Your task to perform on an android device: Go to Reddit.com Image 0: 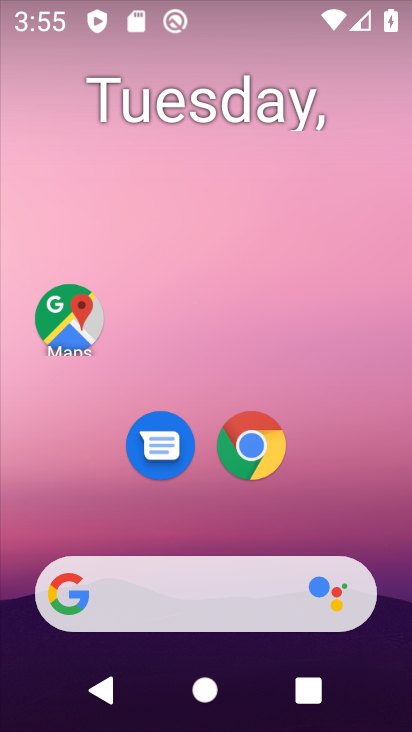
Step 0: click (240, 450)
Your task to perform on an android device: Go to Reddit.com Image 1: 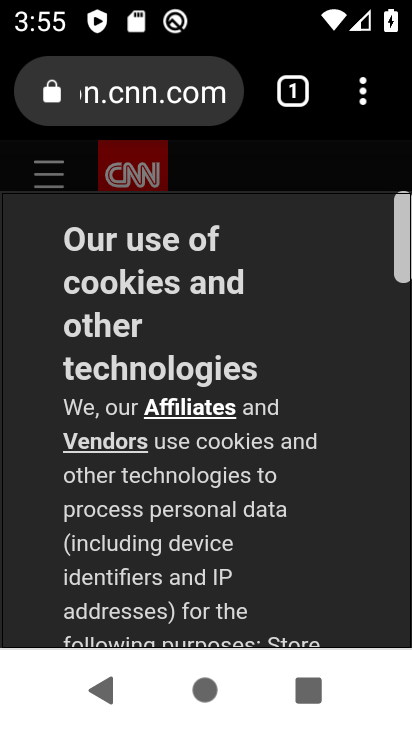
Step 1: click (286, 103)
Your task to perform on an android device: Go to Reddit.com Image 2: 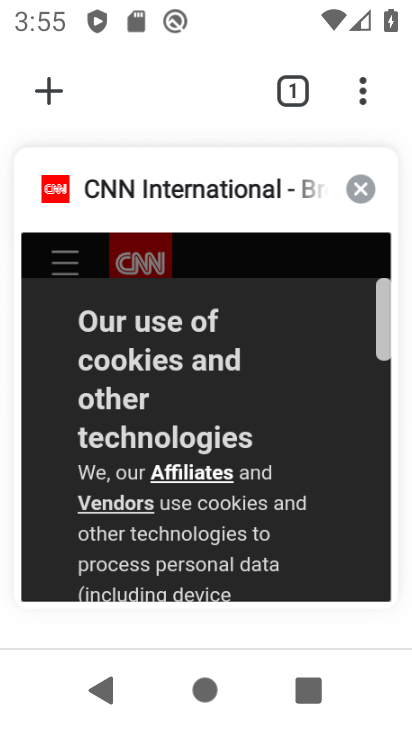
Step 2: click (359, 181)
Your task to perform on an android device: Go to Reddit.com Image 3: 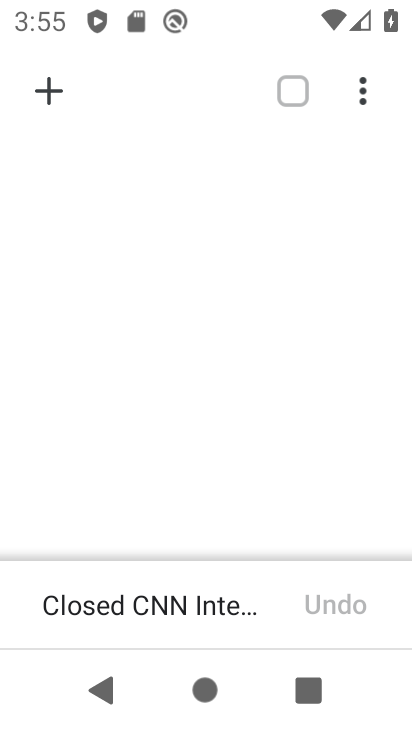
Step 3: click (50, 98)
Your task to perform on an android device: Go to Reddit.com Image 4: 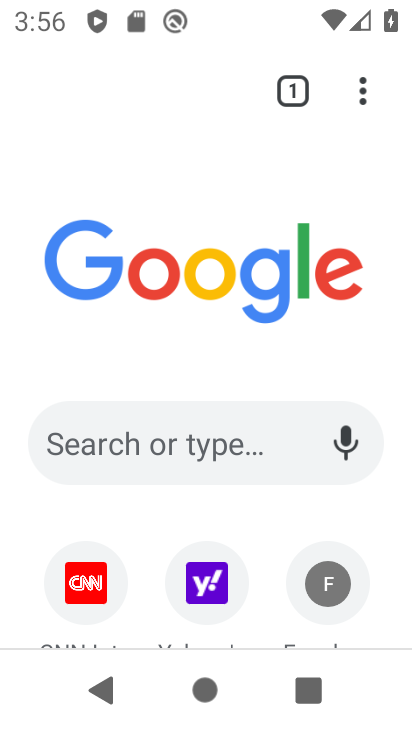
Step 4: click (207, 424)
Your task to perform on an android device: Go to Reddit.com Image 5: 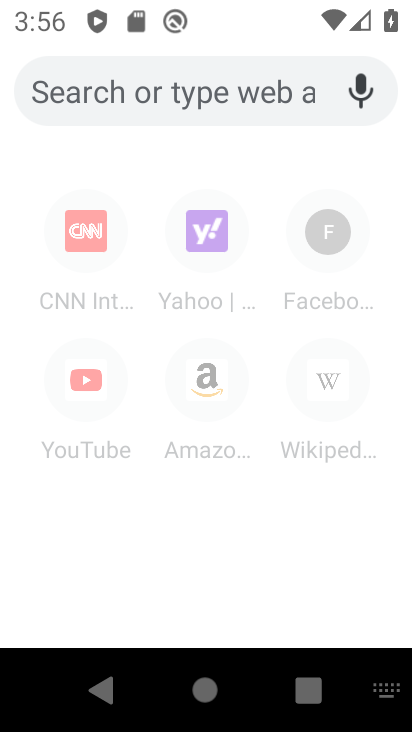
Step 5: type "reddit.com"
Your task to perform on an android device: Go to Reddit.com Image 6: 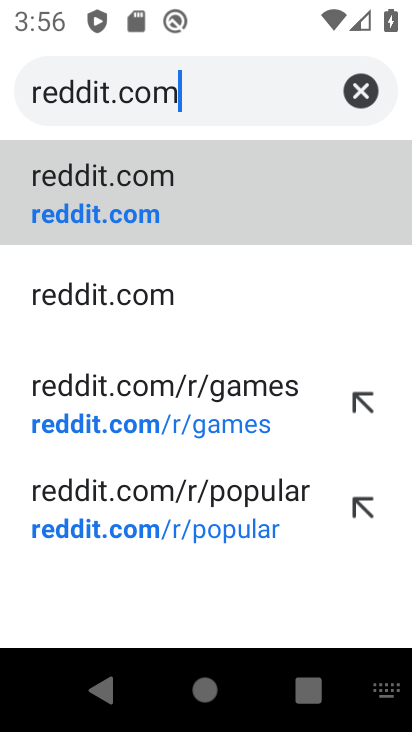
Step 6: click (273, 174)
Your task to perform on an android device: Go to Reddit.com Image 7: 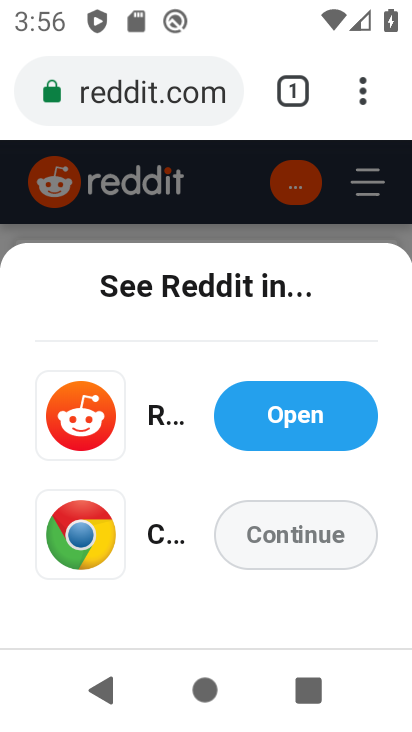
Step 7: task complete